Your task to perform on an android device: set the stopwatch Image 0: 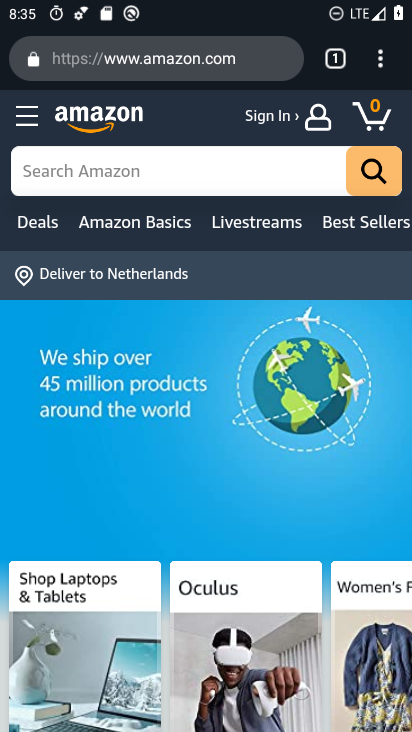
Step 0: press back button
Your task to perform on an android device: set the stopwatch Image 1: 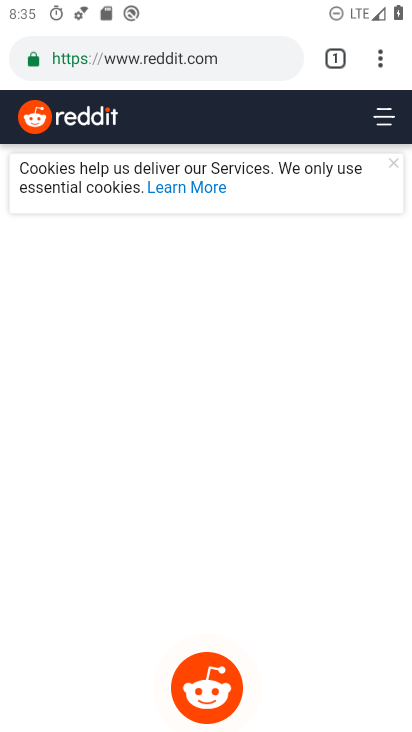
Step 1: press back button
Your task to perform on an android device: set the stopwatch Image 2: 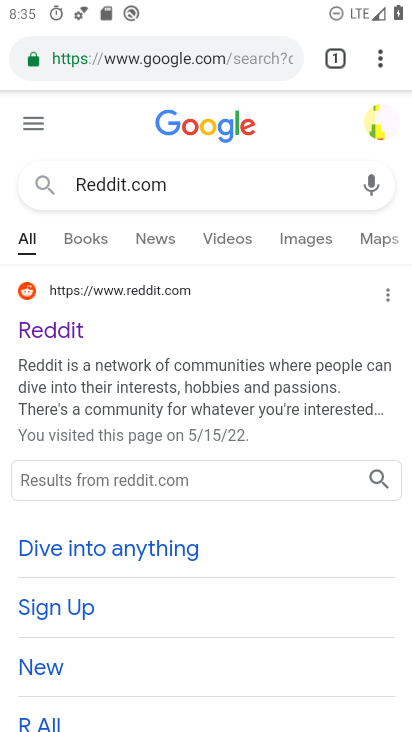
Step 2: press back button
Your task to perform on an android device: set the stopwatch Image 3: 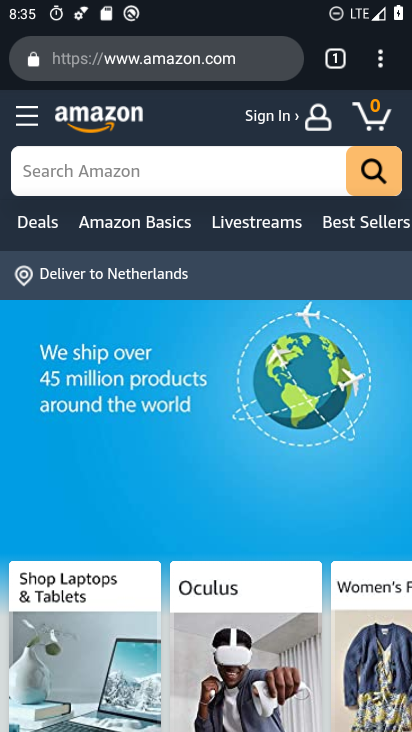
Step 3: press back button
Your task to perform on an android device: set the stopwatch Image 4: 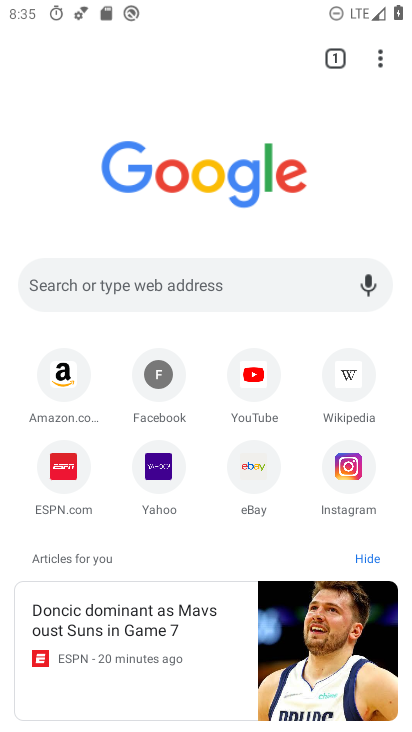
Step 4: press back button
Your task to perform on an android device: set the stopwatch Image 5: 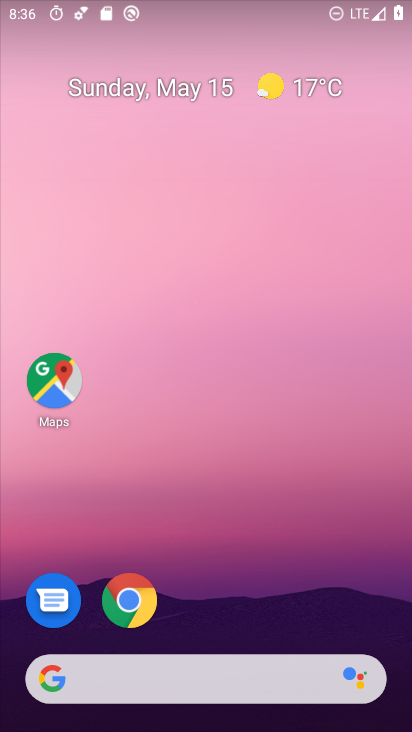
Step 5: drag from (228, 573) to (154, 114)
Your task to perform on an android device: set the stopwatch Image 6: 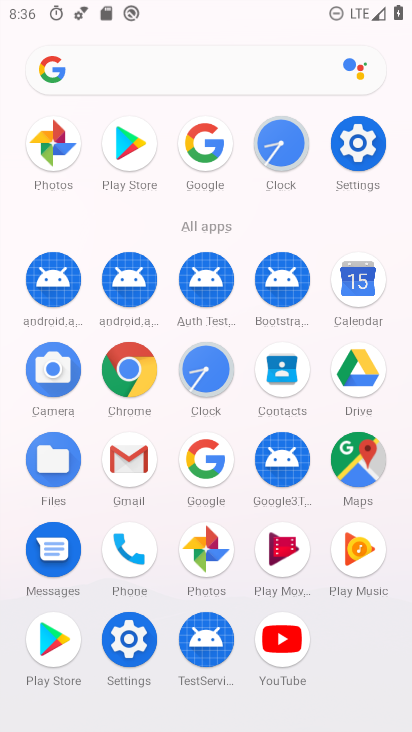
Step 6: click (278, 143)
Your task to perform on an android device: set the stopwatch Image 7: 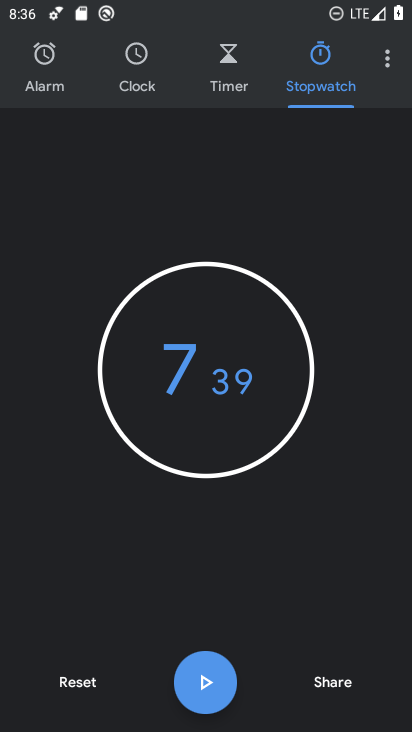
Step 7: click (69, 690)
Your task to perform on an android device: set the stopwatch Image 8: 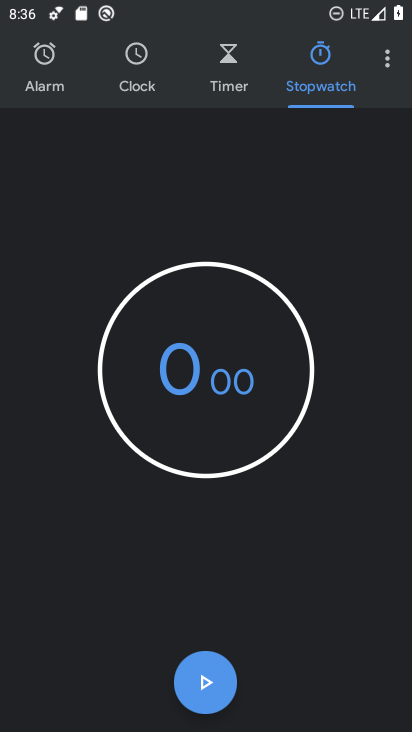
Step 8: click (202, 683)
Your task to perform on an android device: set the stopwatch Image 9: 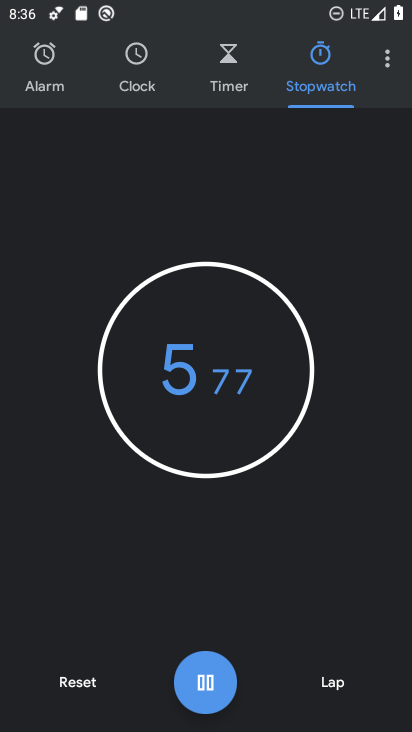
Step 9: click (208, 685)
Your task to perform on an android device: set the stopwatch Image 10: 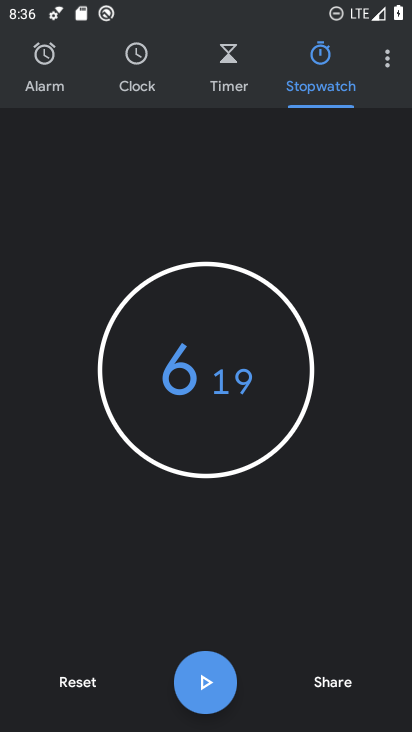
Step 10: task complete